Your task to perform on an android device: Open Reddit.com Image 0: 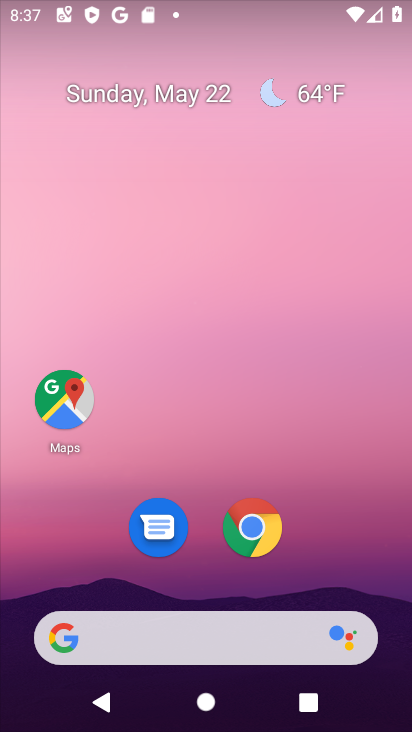
Step 0: press home button
Your task to perform on an android device: Open Reddit.com Image 1: 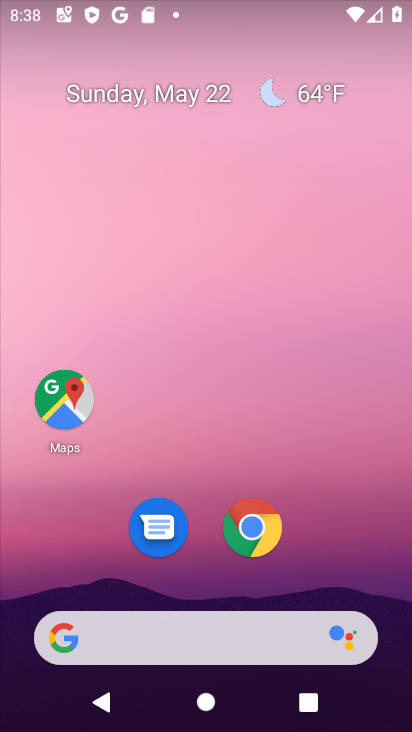
Step 1: click (250, 522)
Your task to perform on an android device: Open Reddit.com Image 2: 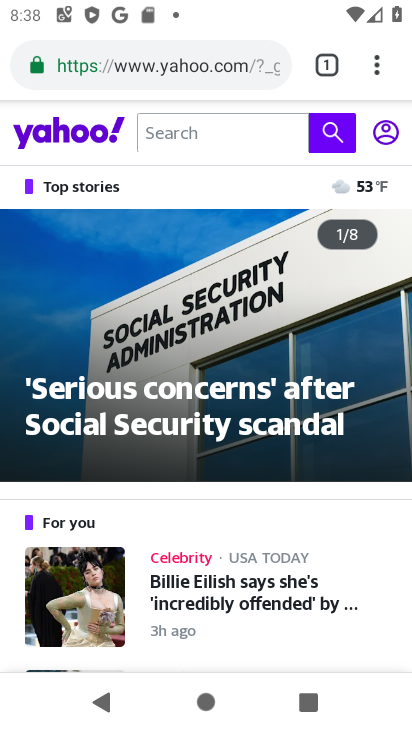
Step 2: click (332, 62)
Your task to perform on an android device: Open Reddit.com Image 3: 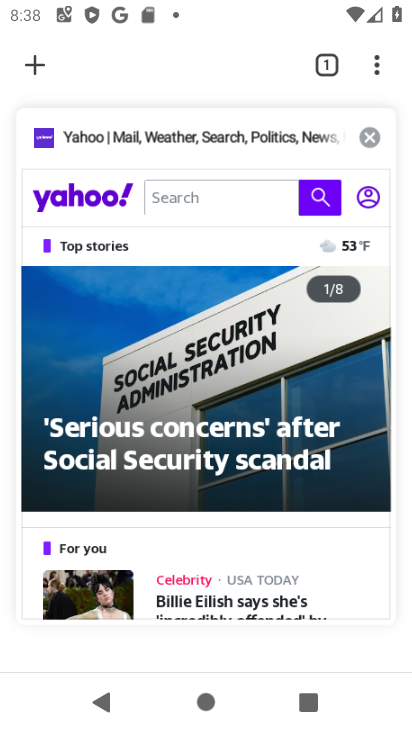
Step 3: click (363, 135)
Your task to perform on an android device: Open Reddit.com Image 4: 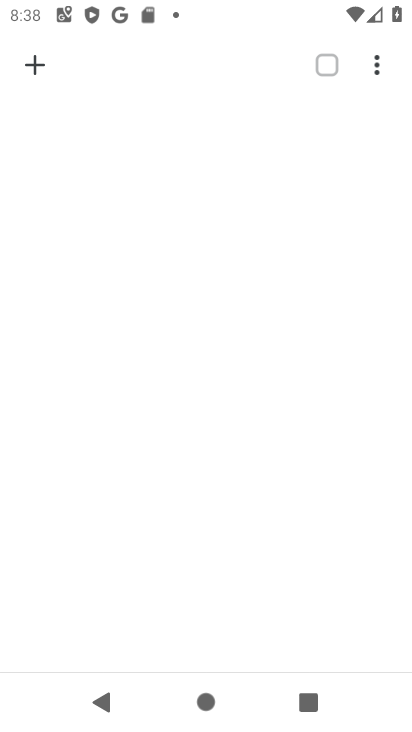
Step 4: click (39, 70)
Your task to perform on an android device: Open Reddit.com Image 5: 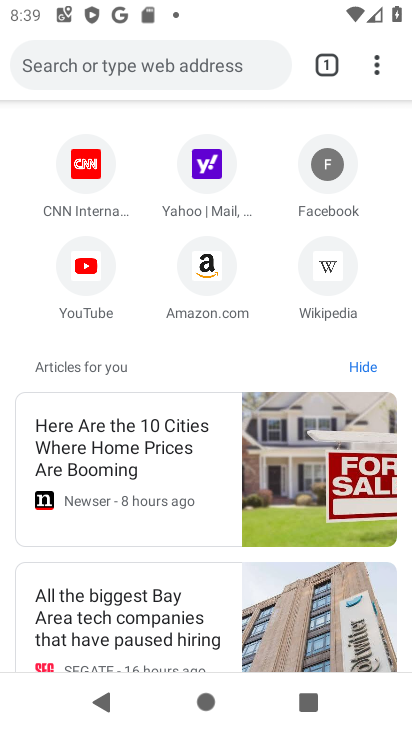
Step 5: click (109, 64)
Your task to perform on an android device: Open Reddit.com Image 6: 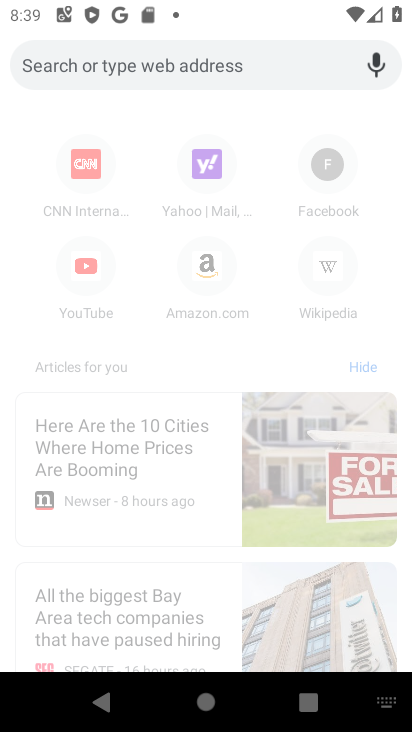
Step 6: type "reddit.com"
Your task to perform on an android device: Open Reddit.com Image 7: 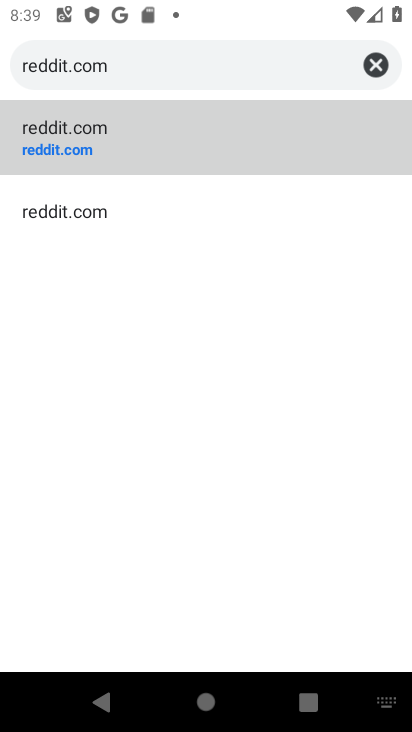
Step 7: click (110, 136)
Your task to perform on an android device: Open Reddit.com Image 8: 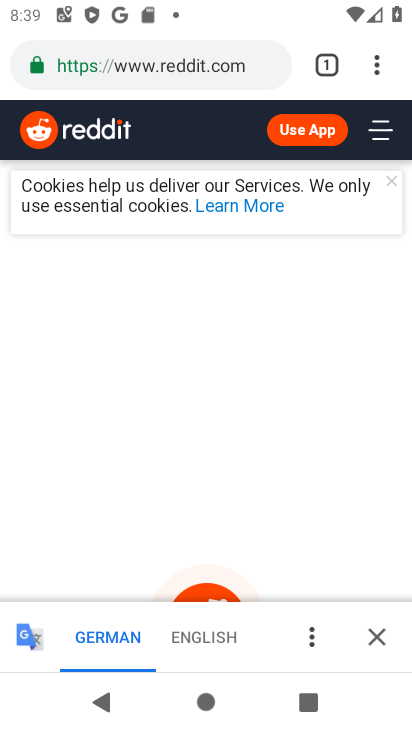
Step 8: drag from (262, 538) to (314, 150)
Your task to perform on an android device: Open Reddit.com Image 9: 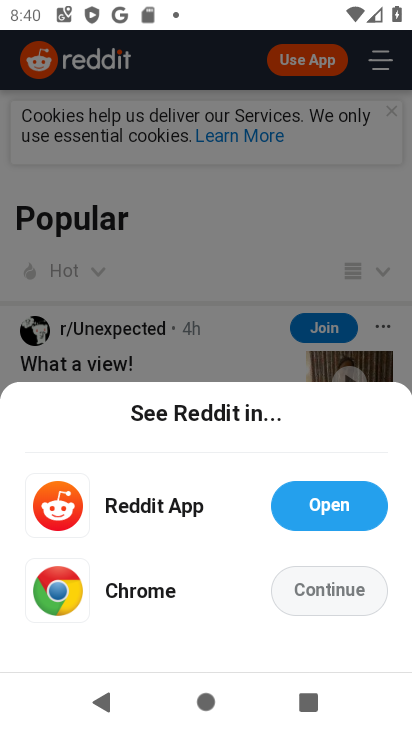
Step 9: click (331, 594)
Your task to perform on an android device: Open Reddit.com Image 10: 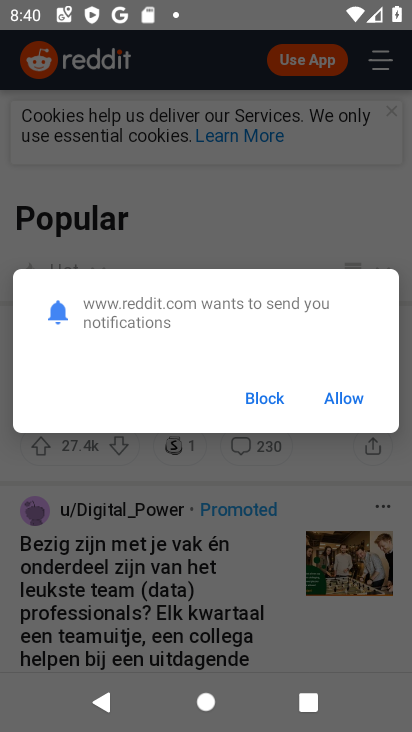
Step 10: click (261, 404)
Your task to perform on an android device: Open Reddit.com Image 11: 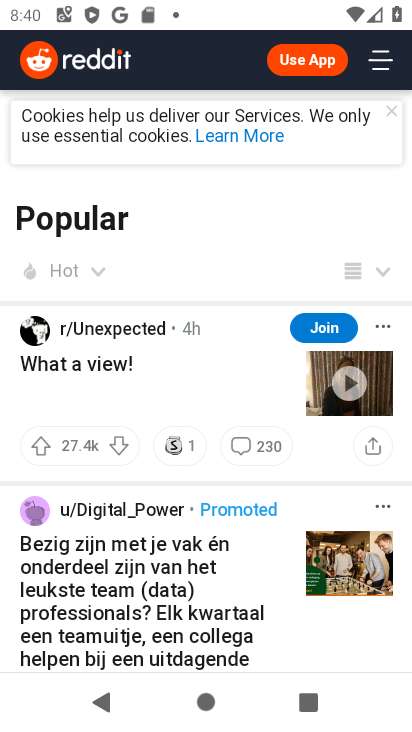
Step 11: task complete